Your task to perform on an android device: turn off data saver in the chrome app Image 0: 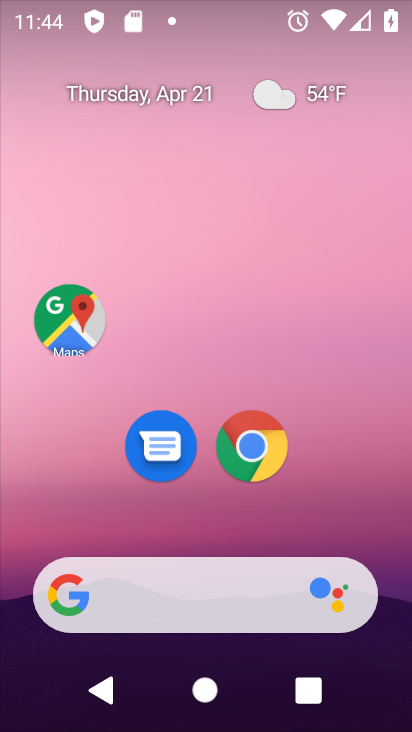
Step 0: click (247, 470)
Your task to perform on an android device: turn off data saver in the chrome app Image 1: 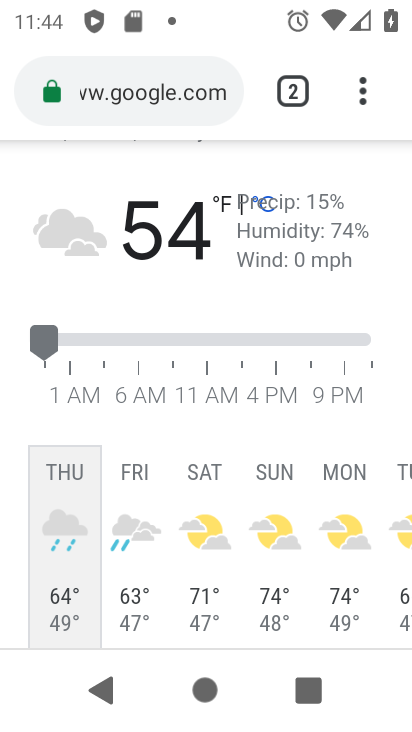
Step 1: click (363, 117)
Your task to perform on an android device: turn off data saver in the chrome app Image 2: 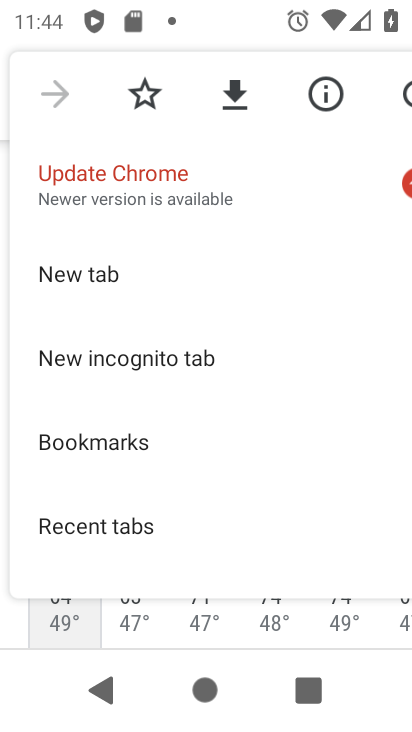
Step 2: drag from (285, 534) to (266, 155)
Your task to perform on an android device: turn off data saver in the chrome app Image 3: 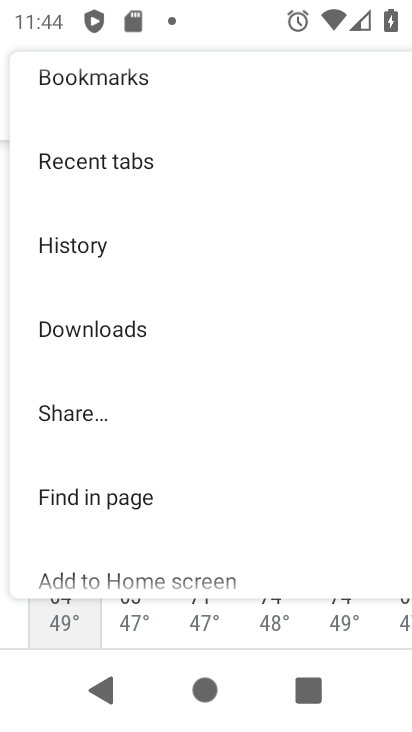
Step 3: drag from (276, 480) to (238, 184)
Your task to perform on an android device: turn off data saver in the chrome app Image 4: 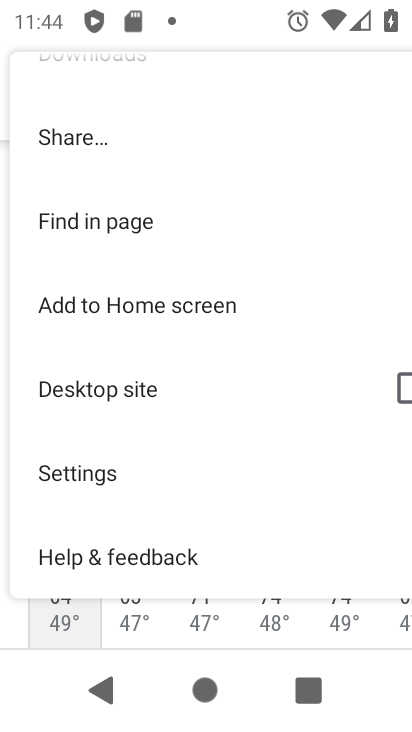
Step 4: click (273, 479)
Your task to perform on an android device: turn off data saver in the chrome app Image 5: 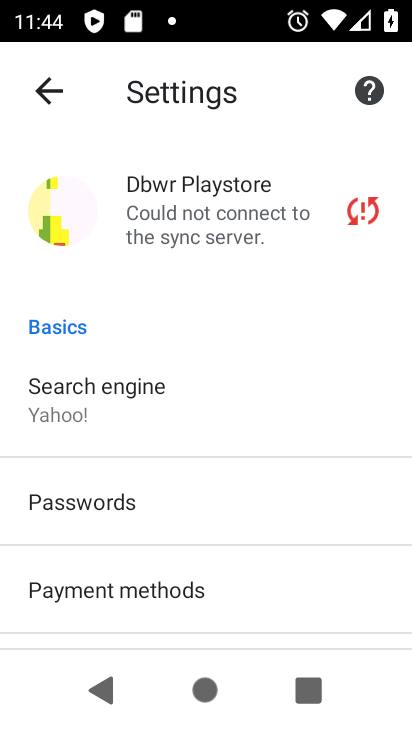
Step 5: drag from (296, 596) to (169, 42)
Your task to perform on an android device: turn off data saver in the chrome app Image 6: 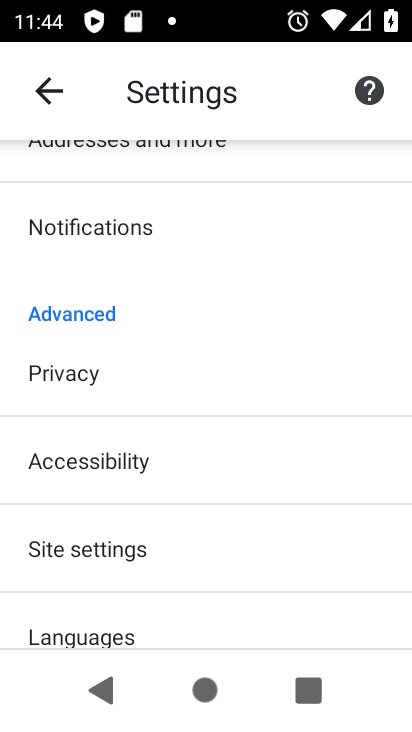
Step 6: drag from (279, 548) to (260, 229)
Your task to perform on an android device: turn off data saver in the chrome app Image 7: 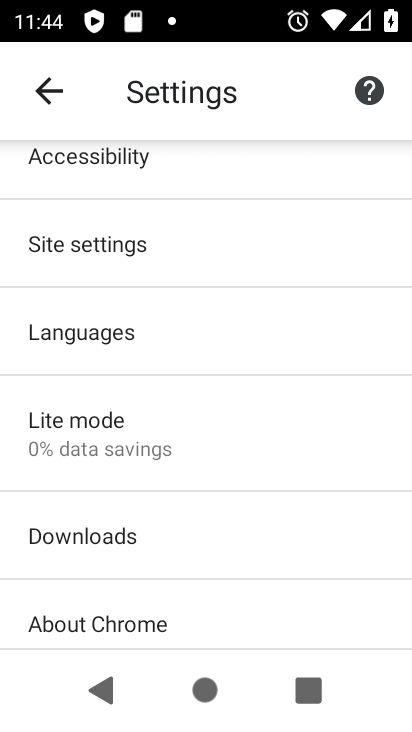
Step 7: click (275, 431)
Your task to perform on an android device: turn off data saver in the chrome app Image 8: 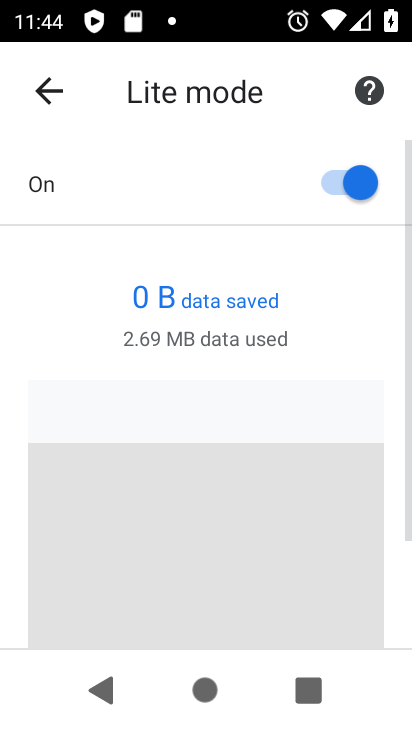
Step 8: click (337, 185)
Your task to perform on an android device: turn off data saver in the chrome app Image 9: 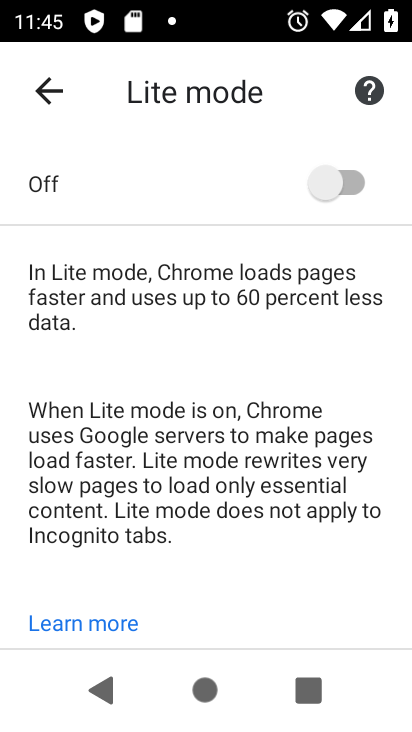
Step 9: task complete